Your task to perform on an android device: turn off notifications settings in the gmail app Image 0: 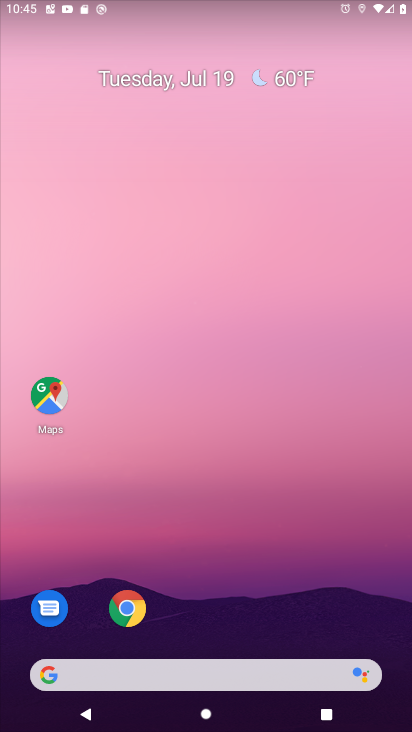
Step 0: drag from (243, 652) to (230, 18)
Your task to perform on an android device: turn off notifications settings in the gmail app Image 1: 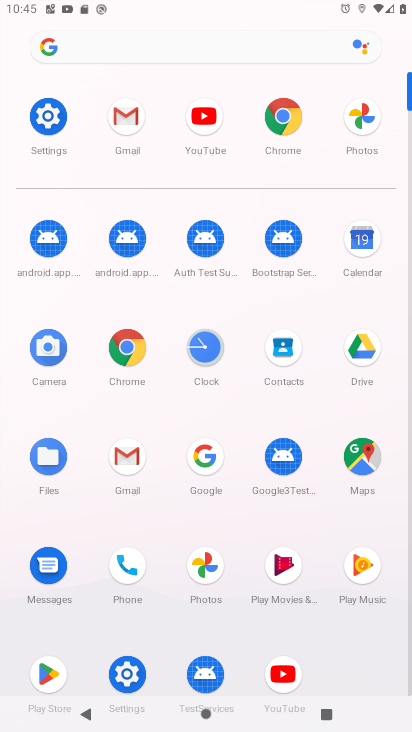
Step 1: click (131, 477)
Your task to perform on an android device: turn off notifications settings in the gmail app Image 2: 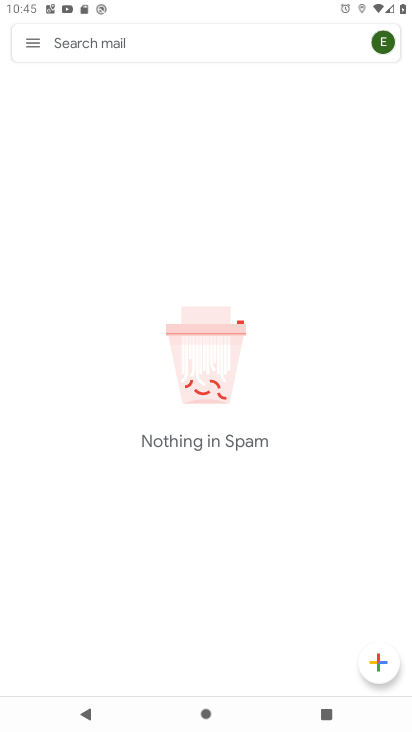
Step 2: click (31, 45)
Your task to perform on an android device: turn off notifications settings in the gmail app Image 3: 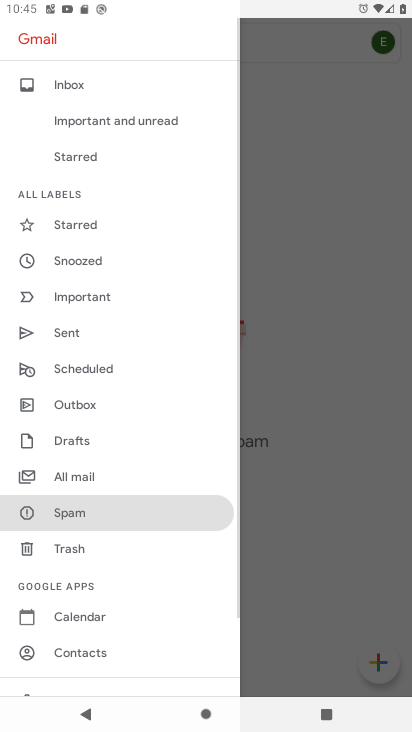
Step 3: drag from (65, 569) to (71, 19)
Your task to perform on an android device: turn off notifications settings in the gmail app Image 4: 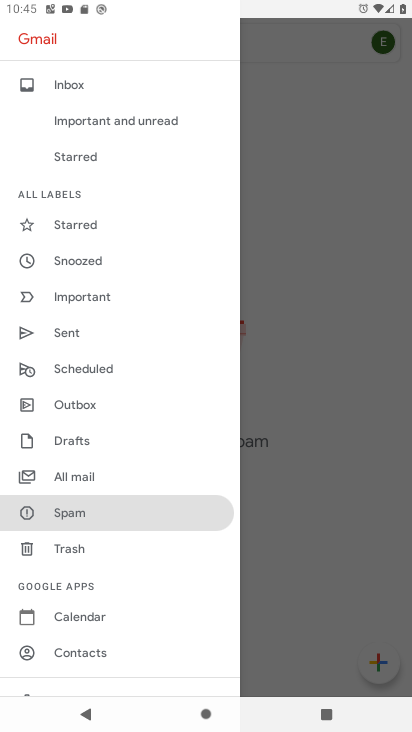
Step 4: drag from (102, 640) to (85, 259)
Your task to perform on an android device: turn off notifications settings in the gmail app Image 5: 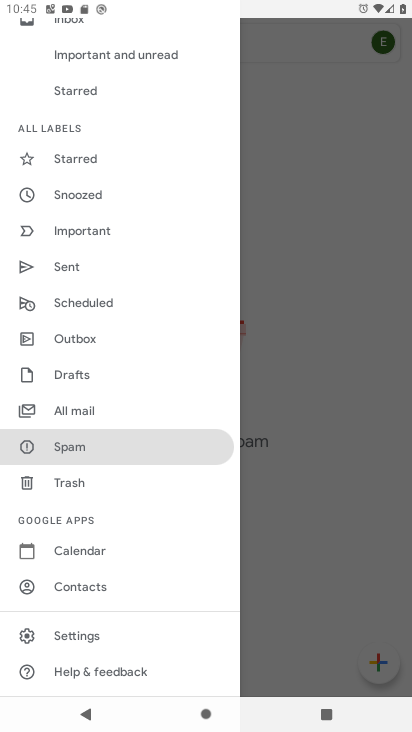
Step 5: click (51, 631)
Your task to perform on an android device: turn off notifications settings in the gmail app Image 6: 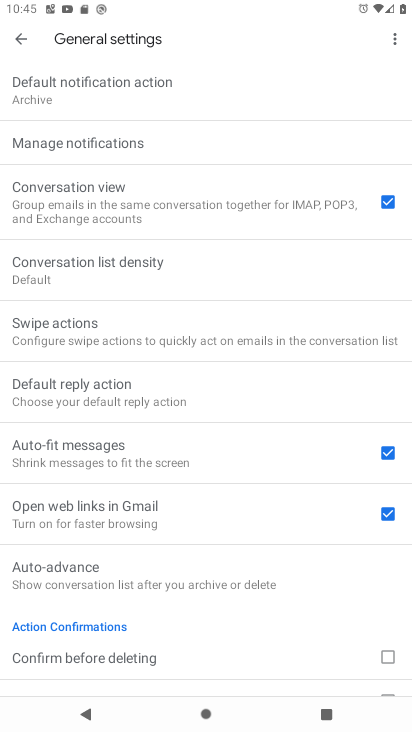
Step 6: click (82, 144)
Your task to perform on an android device: turn off notifications settings in the gmail app Image 7: 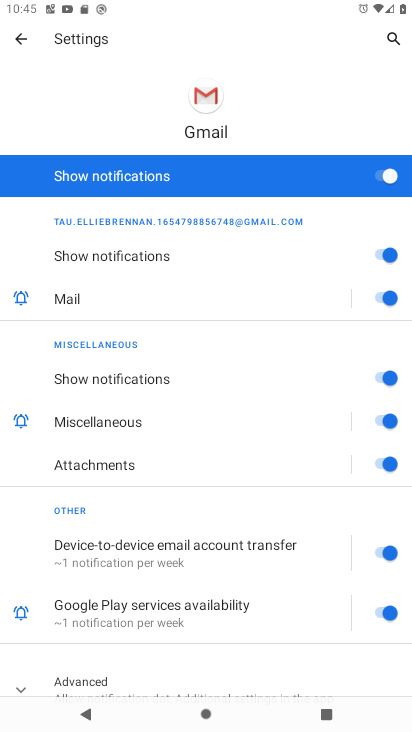
Step 7: click (389, 177)
Your task to perform on an android device: turn off notifications settings in the gmail app Image 8: 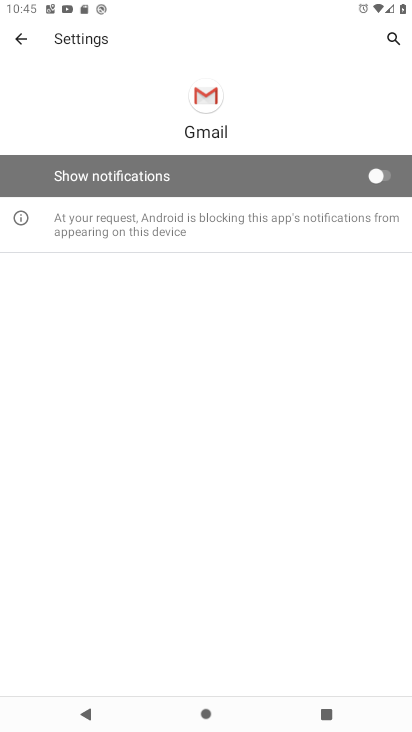
Step 8: task complete